Your task to perform on an android device: toggle sleep mode Image 0: 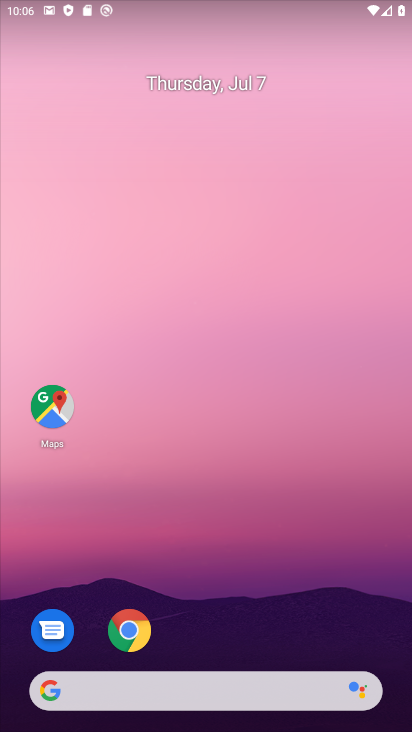
Step 0: drag from (244, 486) to (226, 401)
Your task to perform on an android device: toggle sleep mode Image 1: 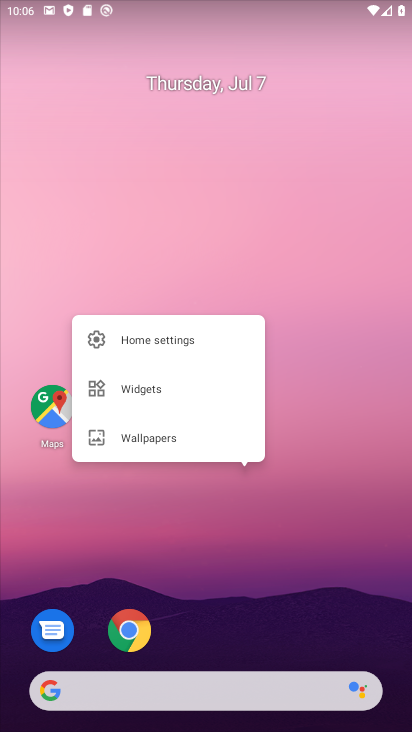
Step 1: drag from (200, 628) to (150, 114)
Your task to perform on an android device: toggle sleep mode Image 2: 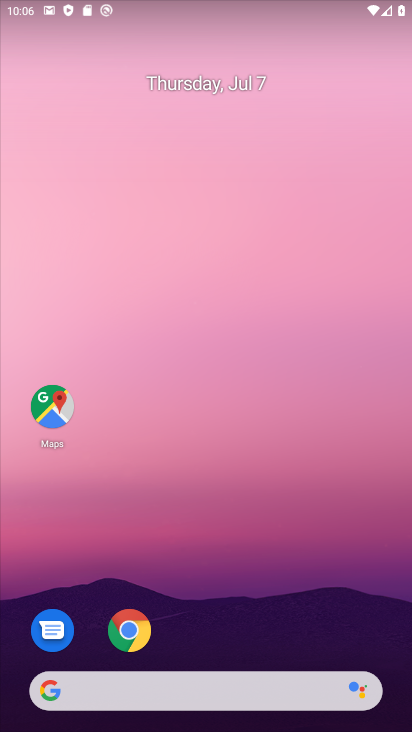
Step 2: drag from (290, 635) to (235, 219)
Your task to perform on an android device: toggle sleep mode Image 3: 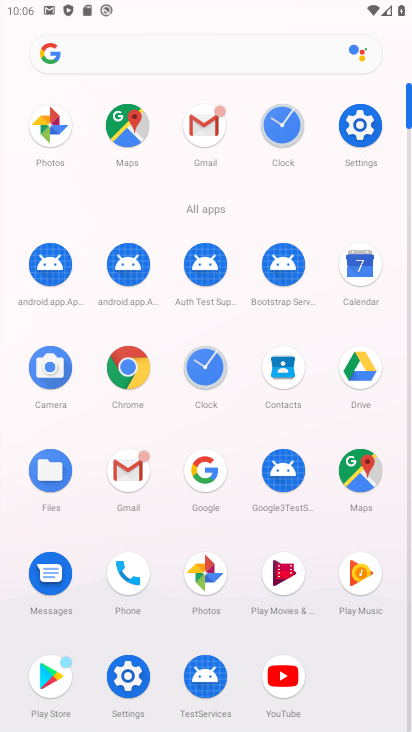
Step 3: click (362, 131)
Your task to perform on an android device: toggle sleep mode Image 4: 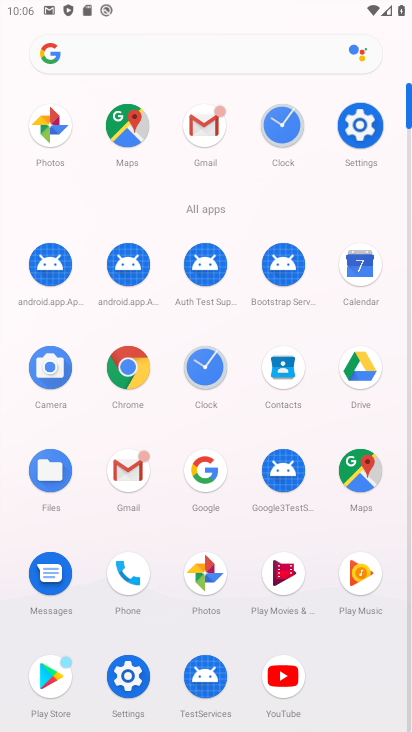
Step 4: click (362, 131)
Your task to perform on an android device: toggle sleep mode Image 5: 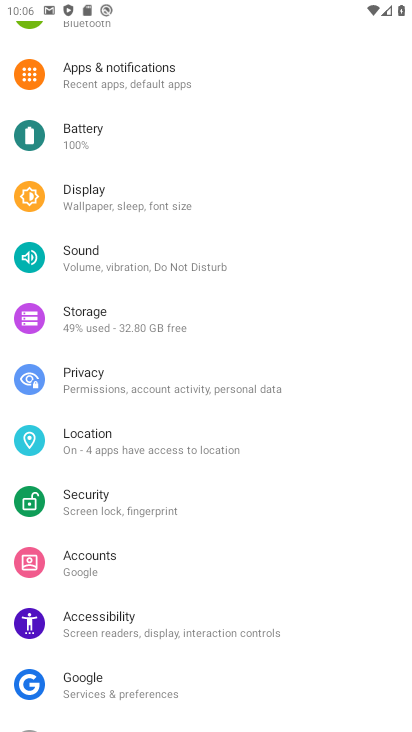
Step 5: click (117, 201)
Your task to perform on an android device: toggle sleep mode Image 6: 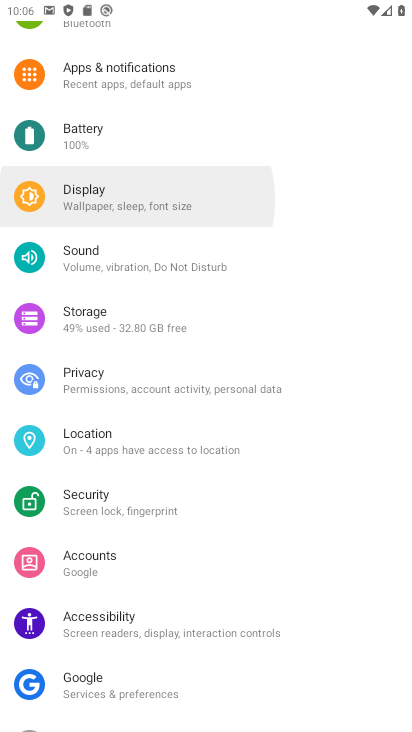
Step 6: click (120, 208)
Your task to perform on an android device: toggle sleep mode Image 7: 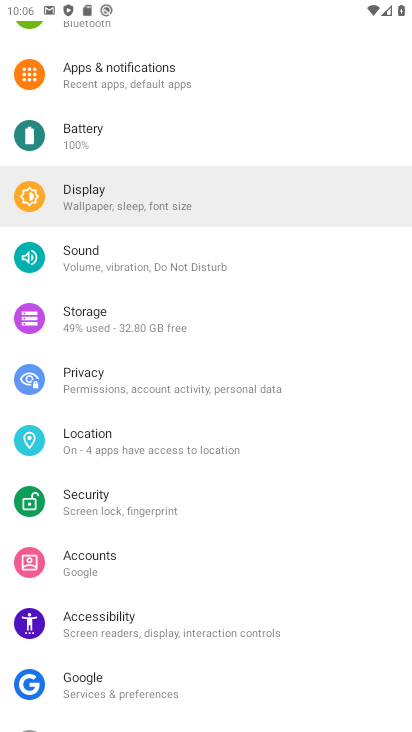
Step 7: click (121, 210)
Your task to perform on an android device: toggle sleep mode Image 8: 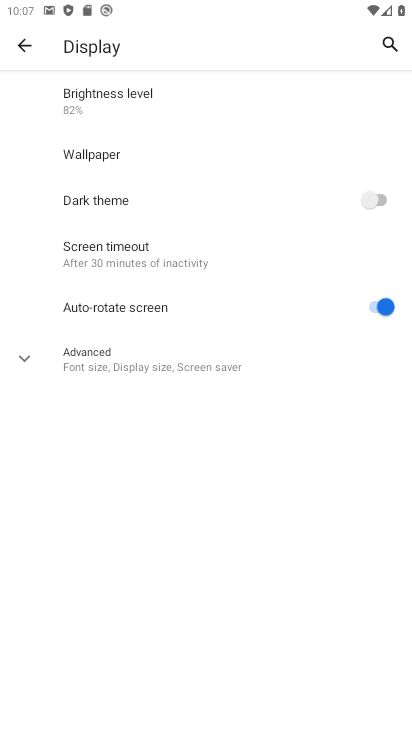
Step 8: click (111, 252)
Your task to perform on an android device: toggle sleep mode Image 9: 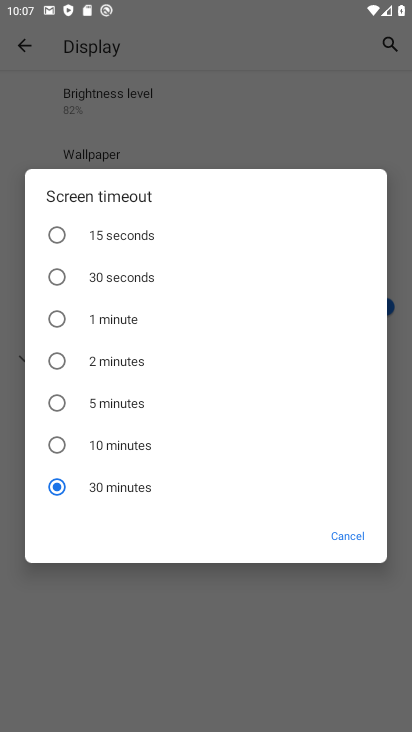
Step 9: click (56, 271)
Your task to perform on an android device: toggle sleep mode Image 10: 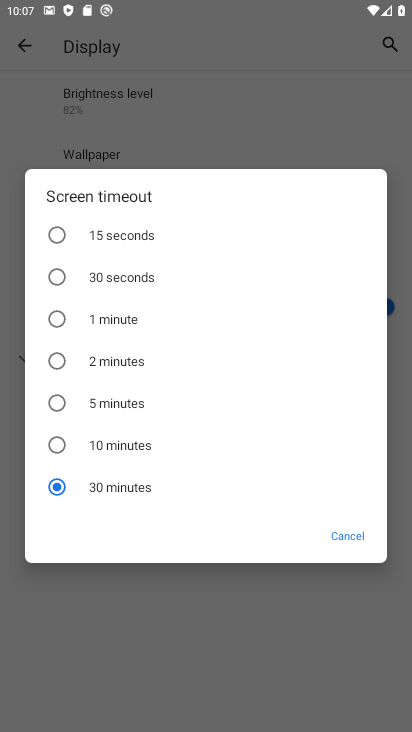
Step 10: click (56, 271)
Your task to perform on an android device: toggle sleep mode Image 11: 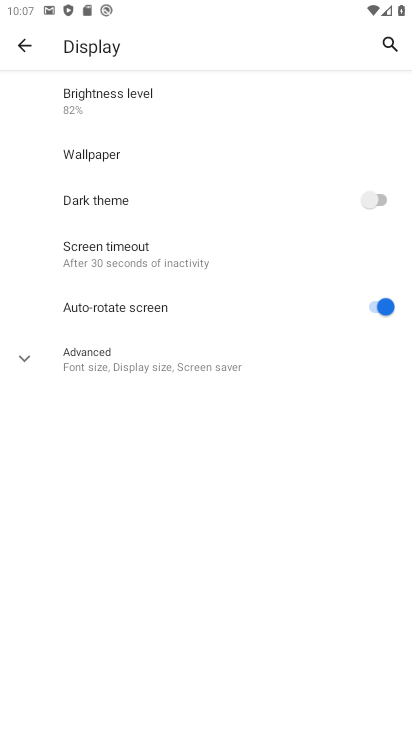
Step 11: task complete